Your task to perform on an android device: Clear the cart on walmart. Image 0: 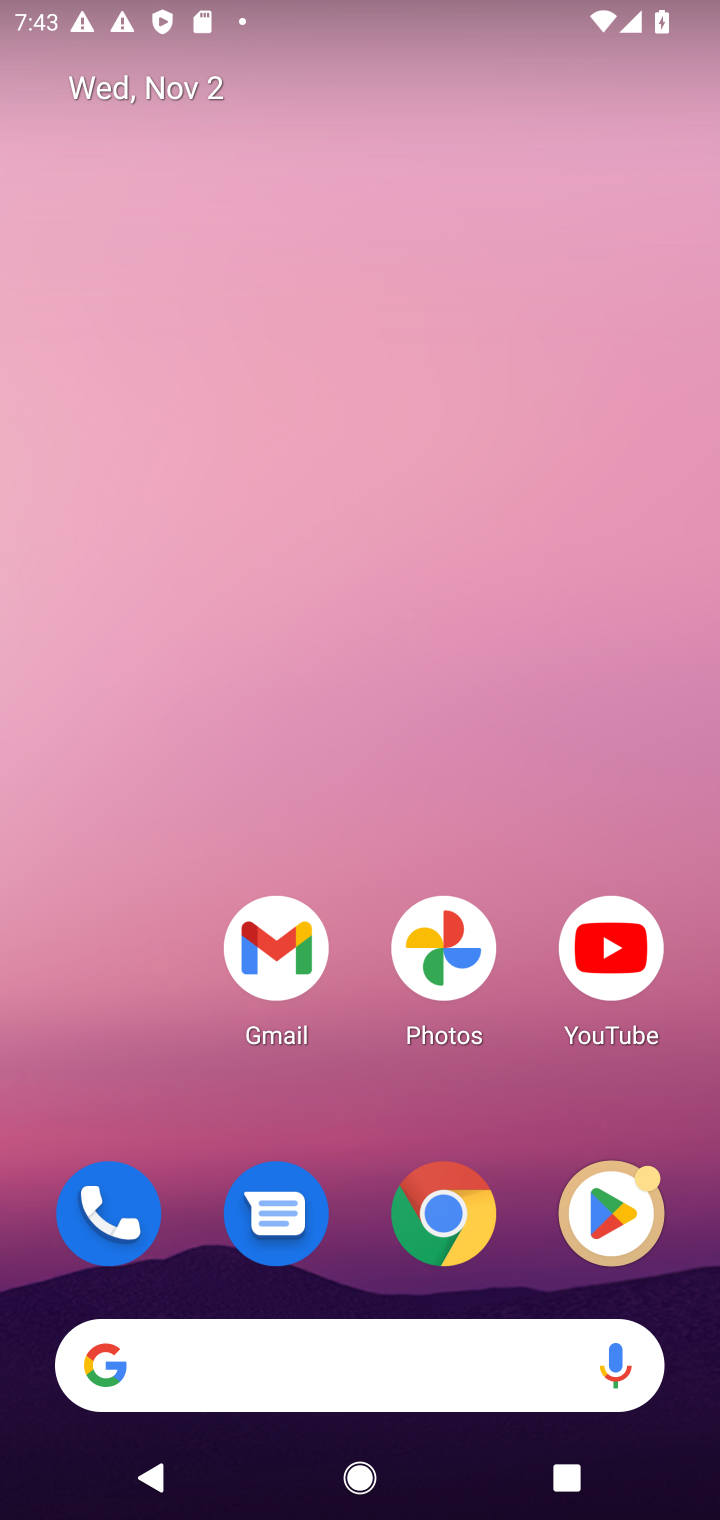
Step 0: click (458, 1210)
Your task to perform on an android device: Clear the cart on walmart. Image 1: 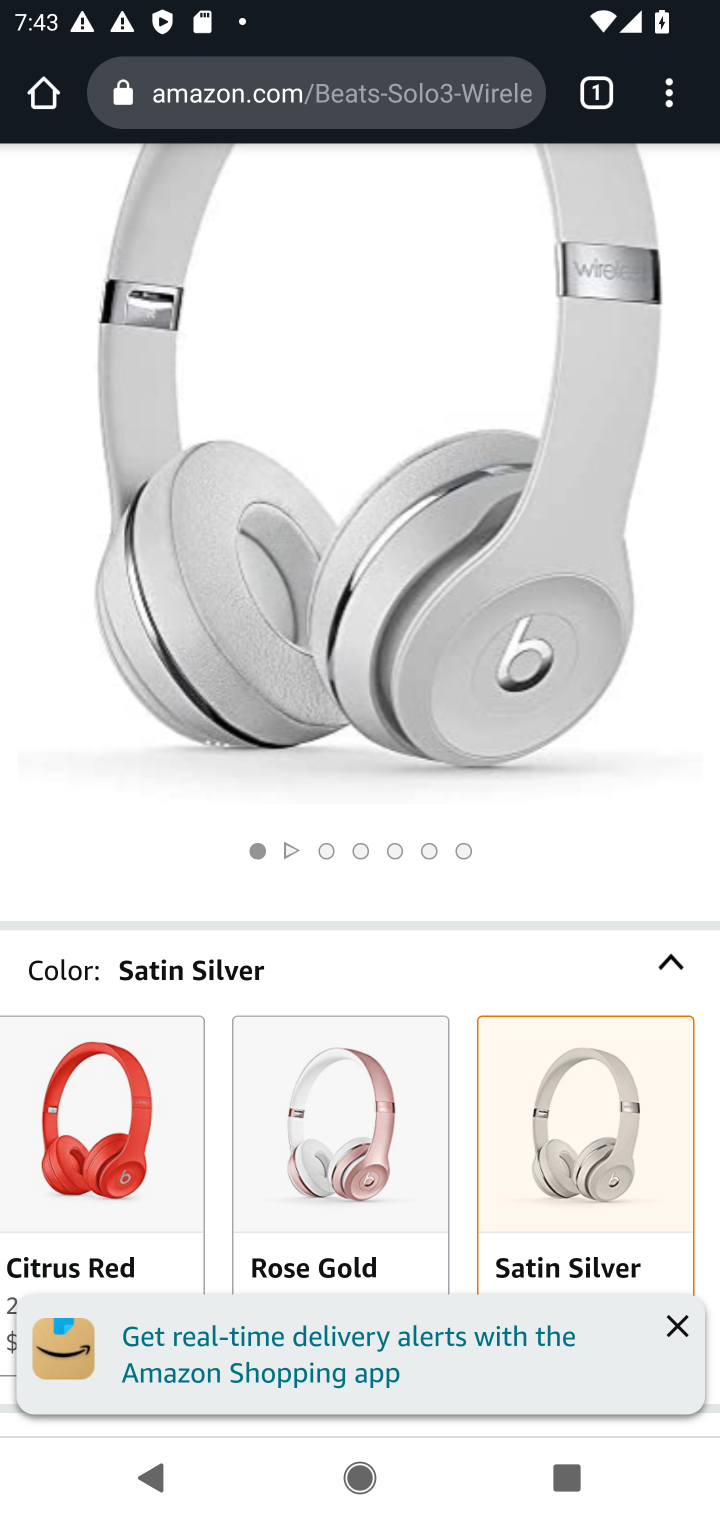
Step 1: click (330, 117)
Your task to perform on an android device: Clear the cart on walmart. Image 2: 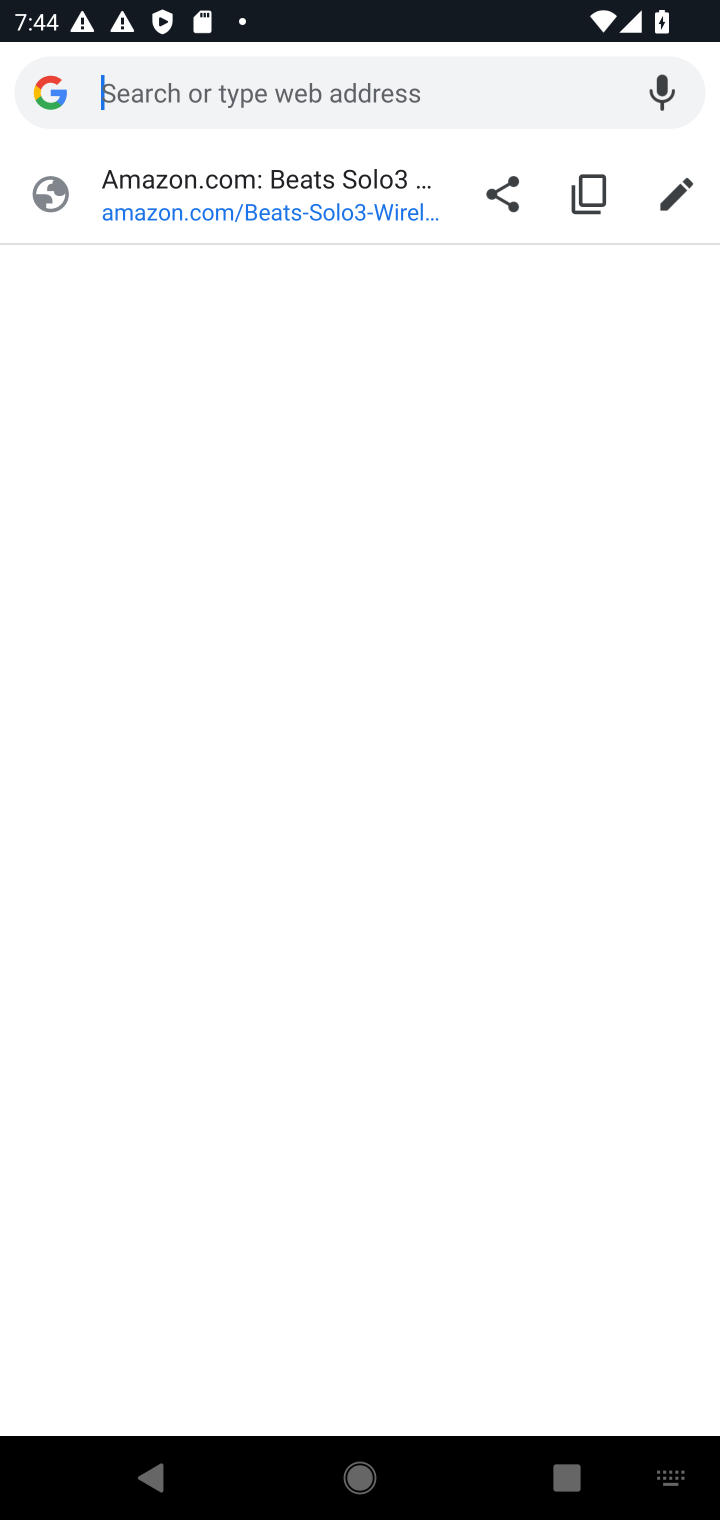
Step 2: type "walmart.com"
Your task to perform on an android device: Clear the cart on walmart. Image 3: 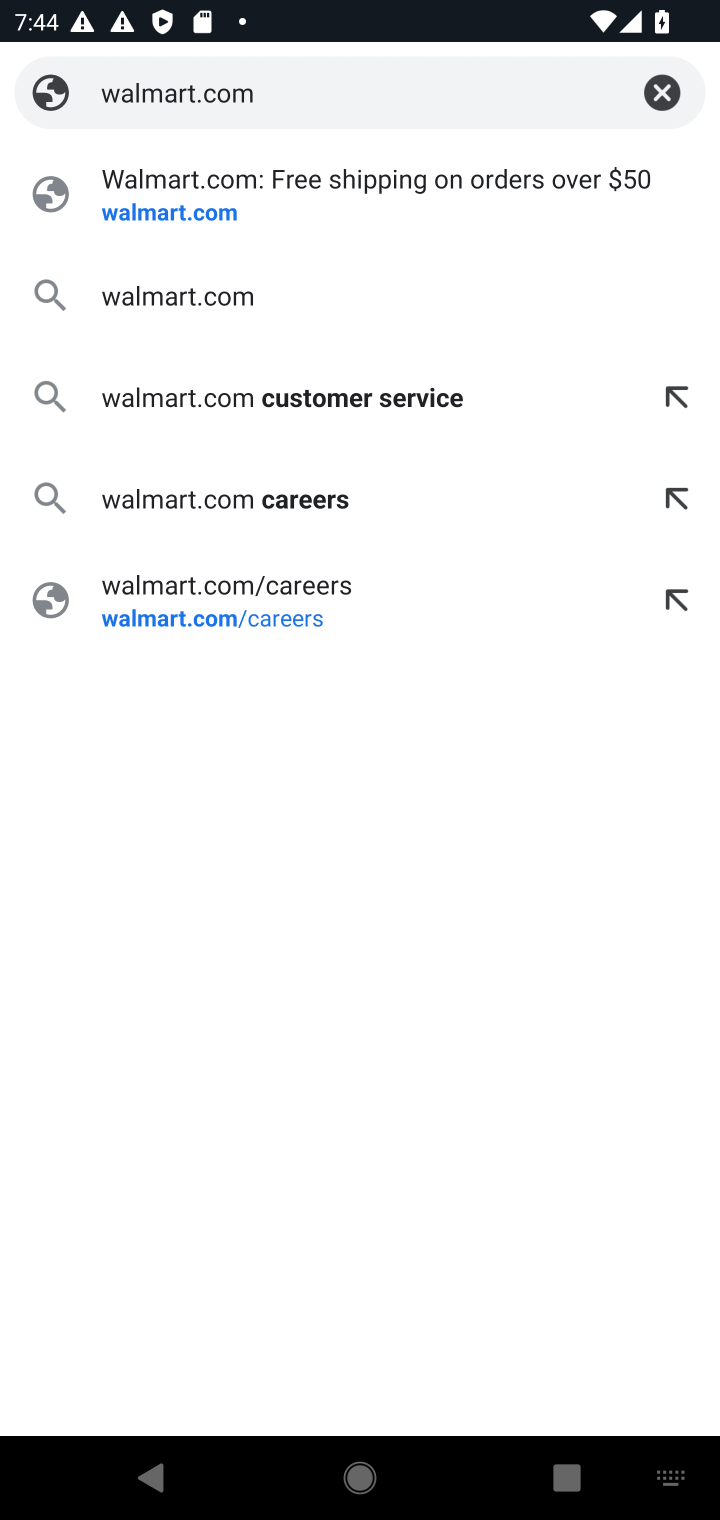
Step 3: click (173, 226)
Your task to perform on an android device: Clear the cart on walmart. Image 4: 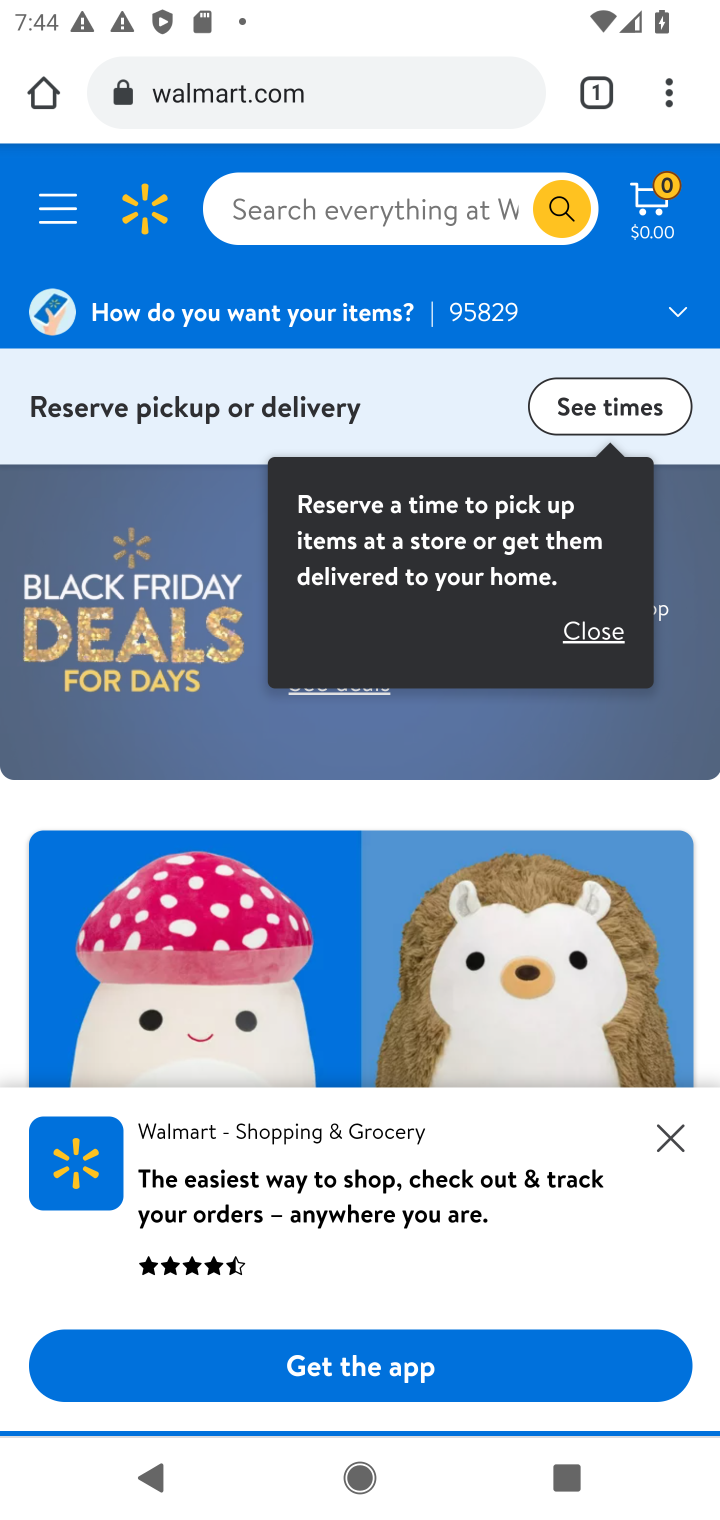
Step 4: click (654, 197)
Your task to perform on an android device: Clear the cart on walmart. Image 5: 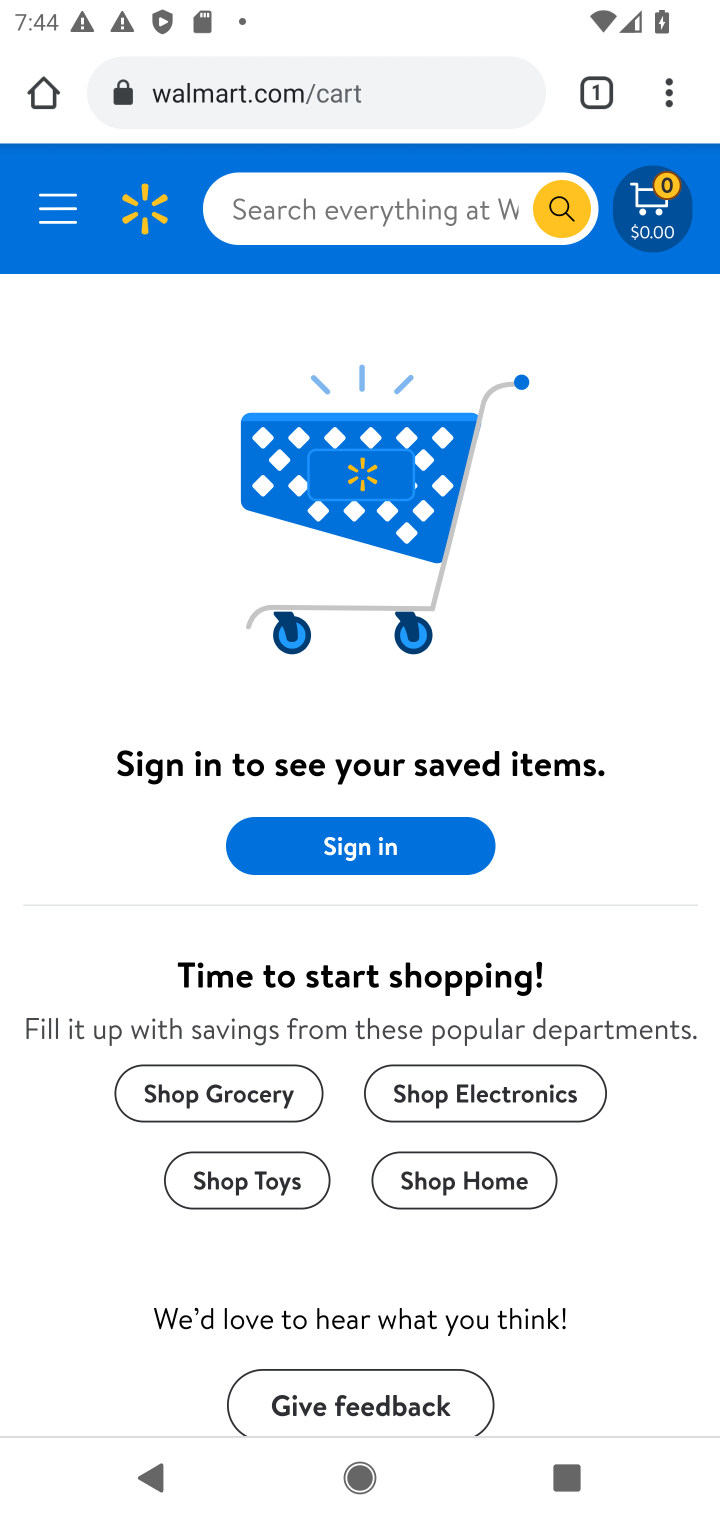
Step 5: task complete